Your task to perform on an android device: Open calendar and show me the third week of next month Image 0: 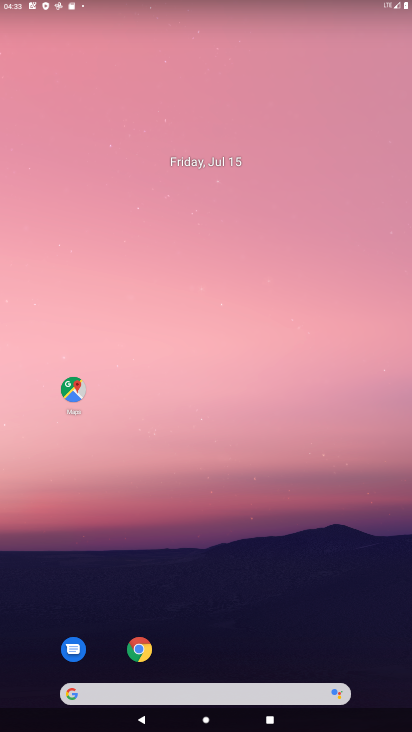
Step 0: drag from (308, 615) to (234, 106)
Your task to perform on an android device: Open calendar and show me the third week of next month Image 1: 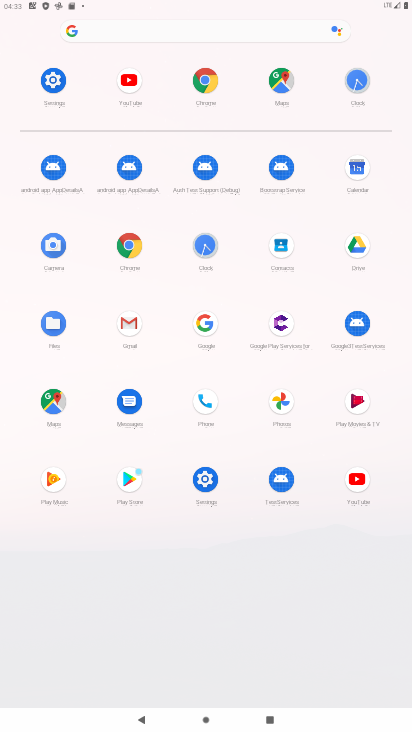
Step 1: click (359, 172)
Your task to perform on an android device: Open calendar and show me the third week of next month Image 2: 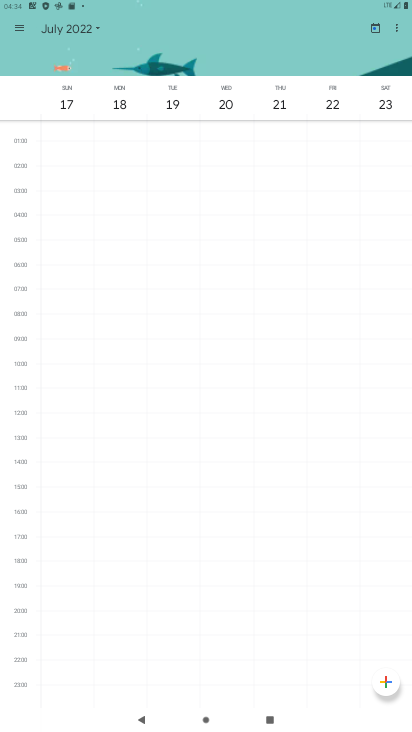
Step 2: click (81, 31)
Your task to perform on an android device: Open calendar and show me the third week of next month Image 3: 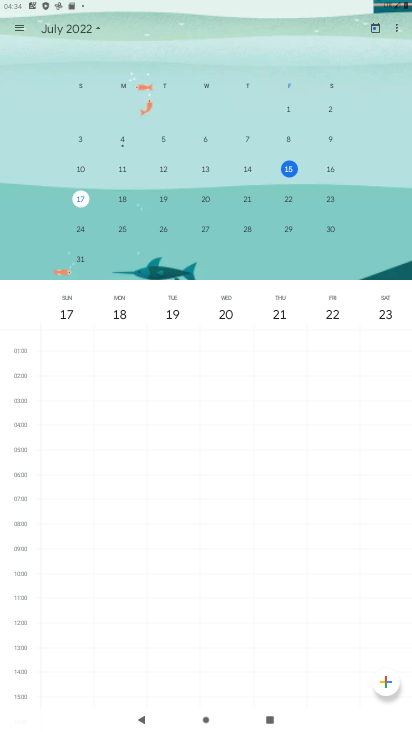
Step 3: drag from (338, 200) to (38, 185)
Your task to perform on an android device: Open calendar and show me the third week of next month Image 4: 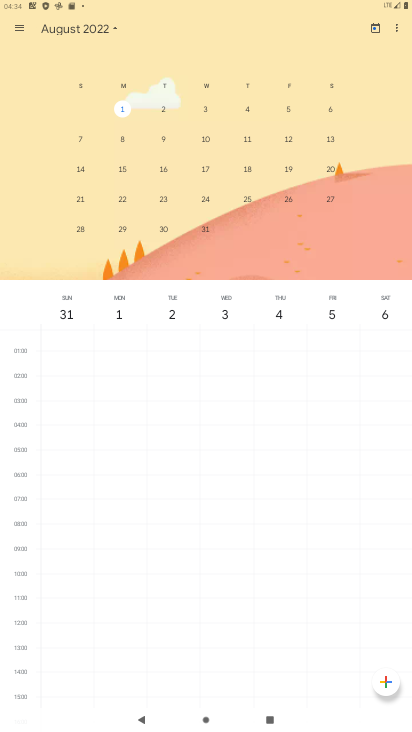
Step 4: click (116, 162)
Your task to perform on an android device: Open calendar and show me the third week of next month Image 5: 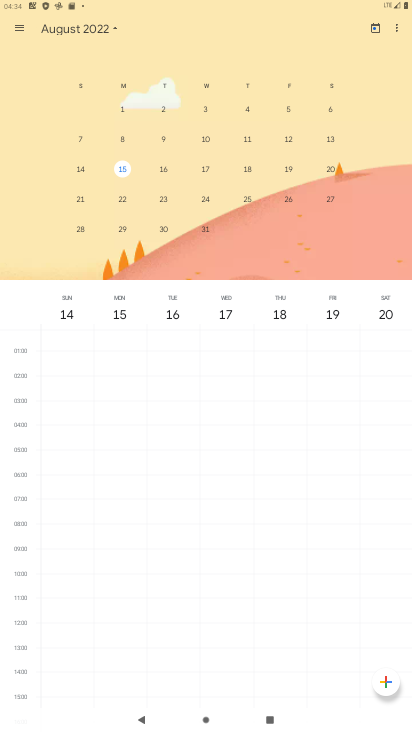
Step 5: task complete